Your task to perform on an android device: Is it going to rain tomorrow? Image 0: 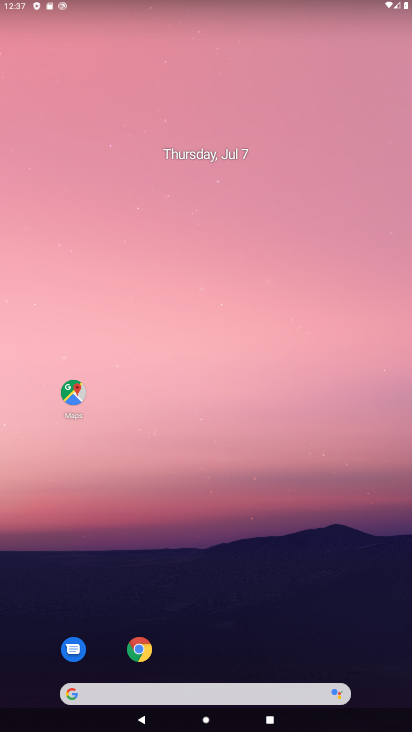
Step 0: drag from (216, 663) to (180, 194)
Your task to perform on an android device: Is it going to rain tomorrow? Image 1: 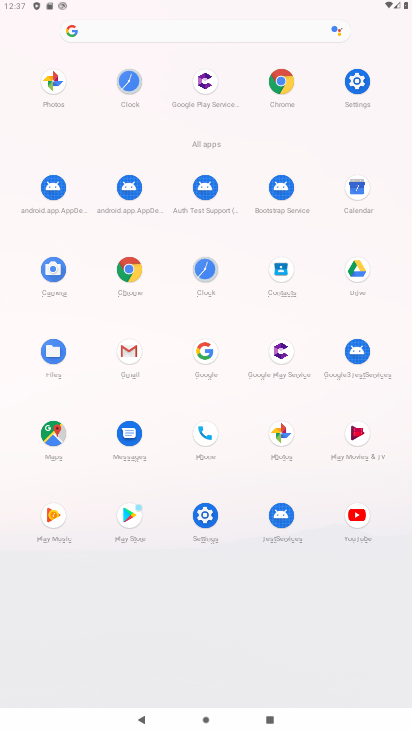
Step 1: click (355, 188)
Your task to perform on an android device: Is it going to rain tomorrow? Image 2: 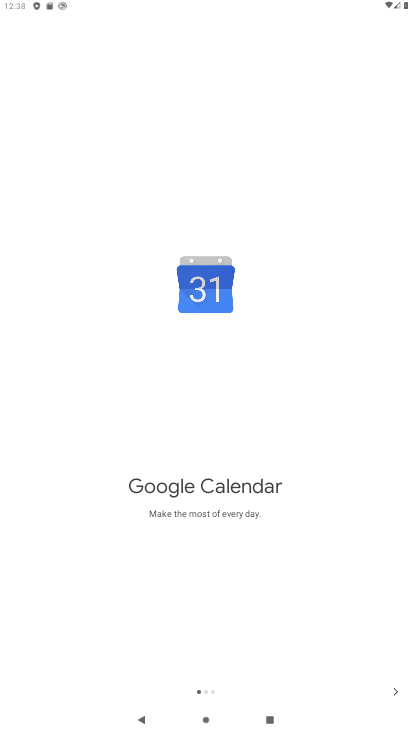
Step 2: click (397, 699)
Your task to perform on an android device: Is it going to rain tomorrow? Image 3: 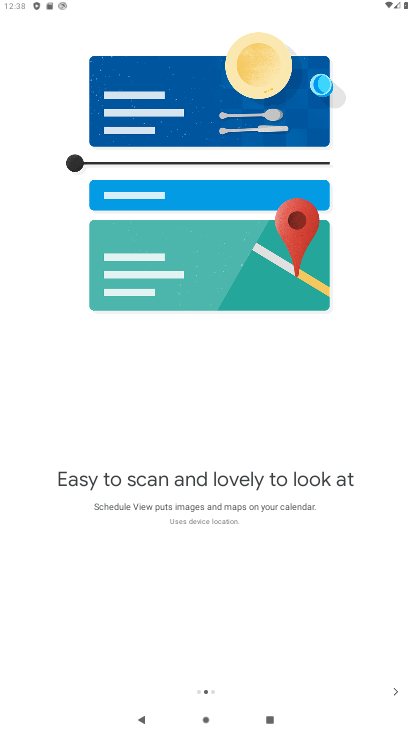
Step 3: click (391, 689)
Your task to perform on an android device: Is it going to rain tomorrow? Image 4: 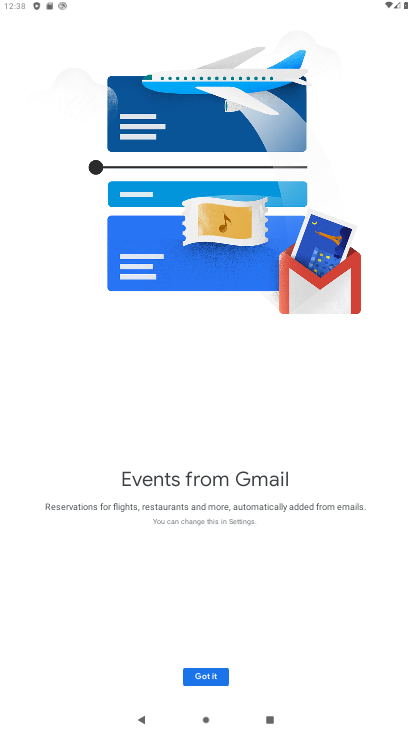
Step 4: click (215, 677)
Your task to perform on an android device: Is it going to rain tomorrow? Image 5: 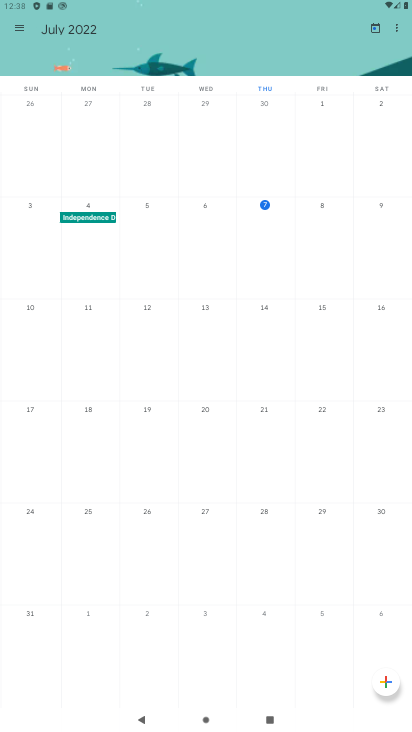
Step 5: click (305, 212)
Your task to perform on an android device: Is it going to rain tomorrow? Image 6: 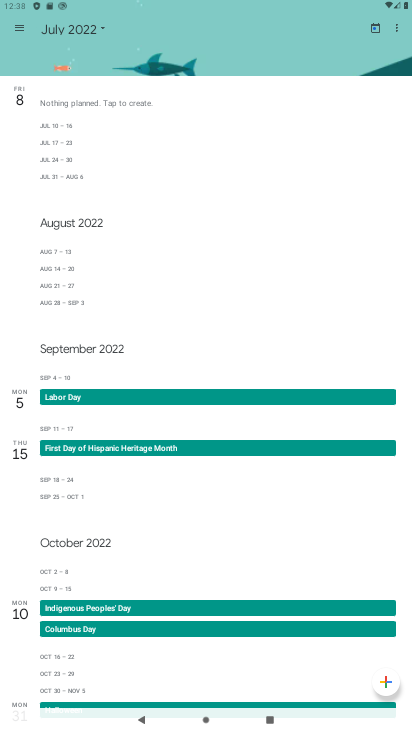
Step 6: task complete